Your task to perform on an android device: change the upload size in google photos Image 0: 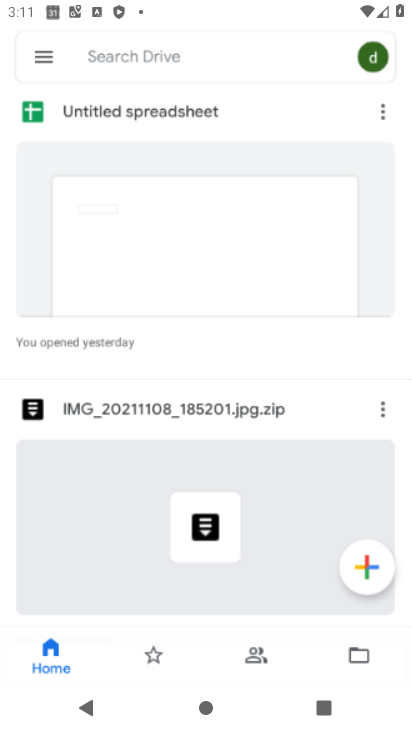
Step 0: drag from (272, 672) to (299, 104)
Your task to perform on an android device: change the upload size in google photos Image 1: 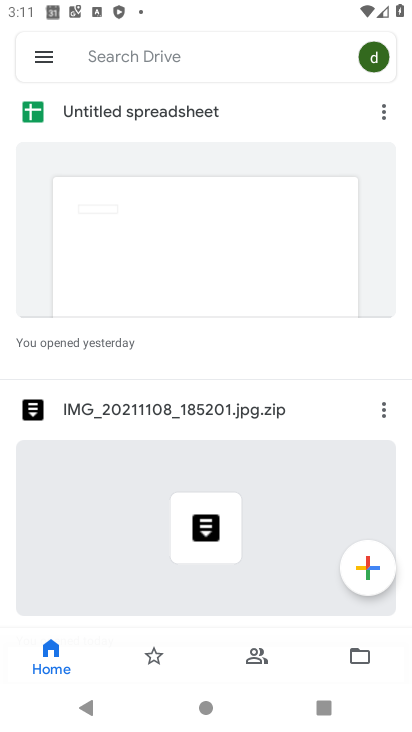
Step 1: press home button
Your task to perform on an android device: change the upload size in google photos Image 2: 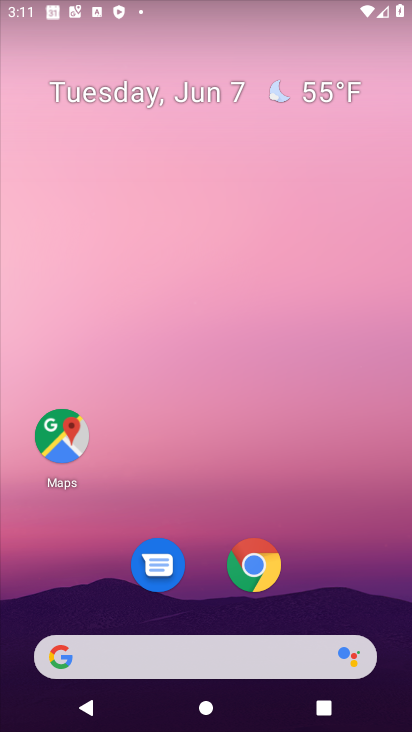
Step 2: drag from (183, 645) to (315, 67)
Your task to perform on an android device: change the upload size in google photos Image 3: 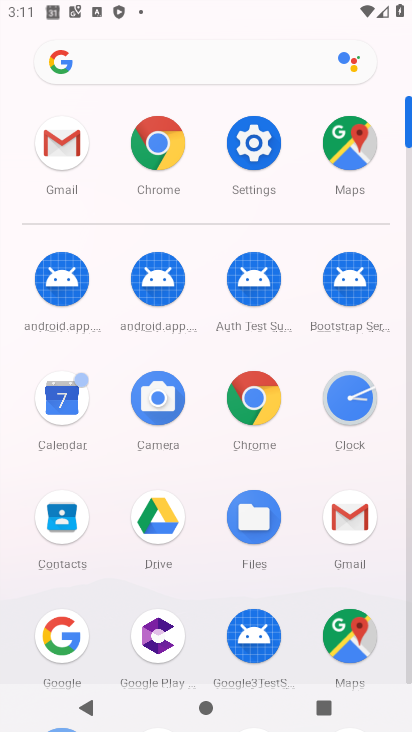
Step 3: drag from (191, 612) to (207, 390)
Your task to perform on an android device: change the upload size in google photos Image 4: 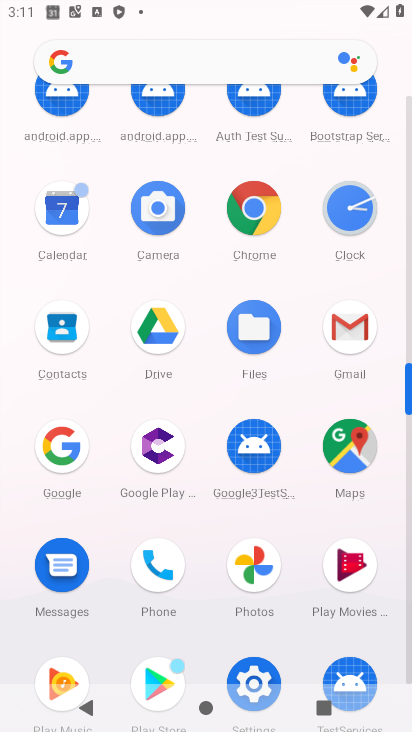
Step 4: click (259, 564)
Your task to perform on an android device: change the upload size in google photos Image 5: 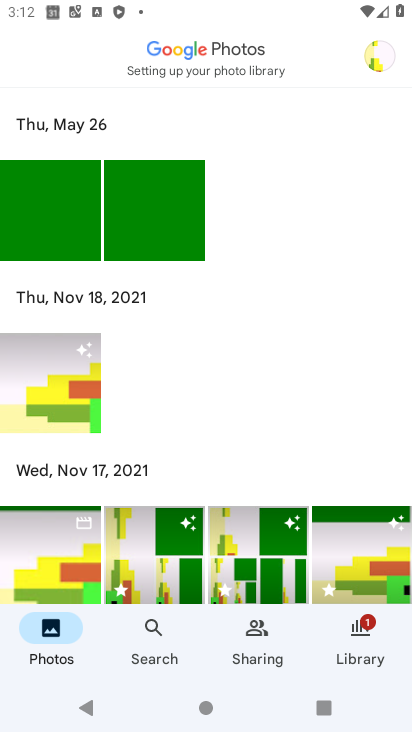
Step 5: click (377, 62)
Your task to perform on an android device: change the upload size in google photos Image 6: 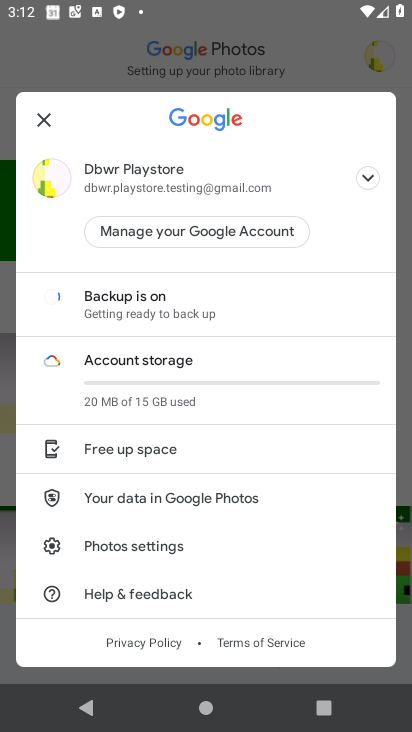
Step 6: drag from (231, 611) to (226, 251)
Your task to perform on an android device: change the upload size in google photos Image 7: 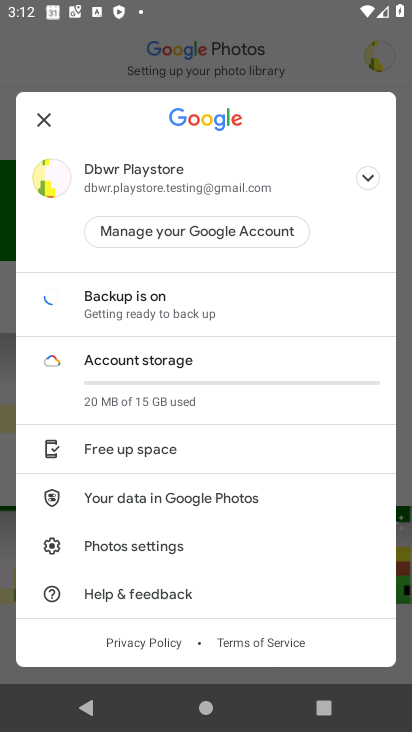
Step 7: click (178, 544)
Your task to perform on an android device: change the upload size in google photos Image 8: 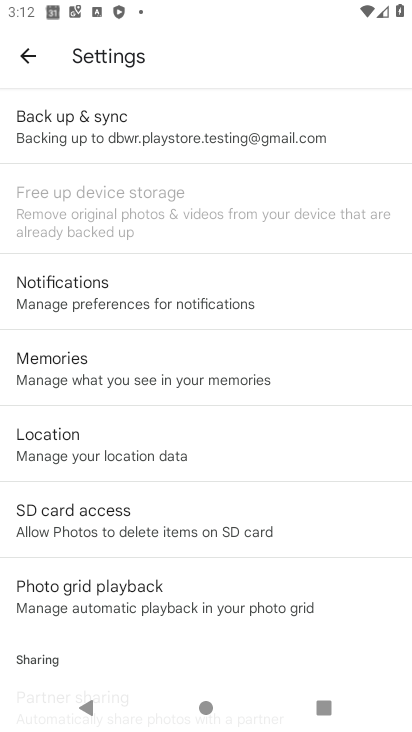
Step 8: click (204, 295)
Your task to perform on an android device: change the upload size in google photos Image 9: 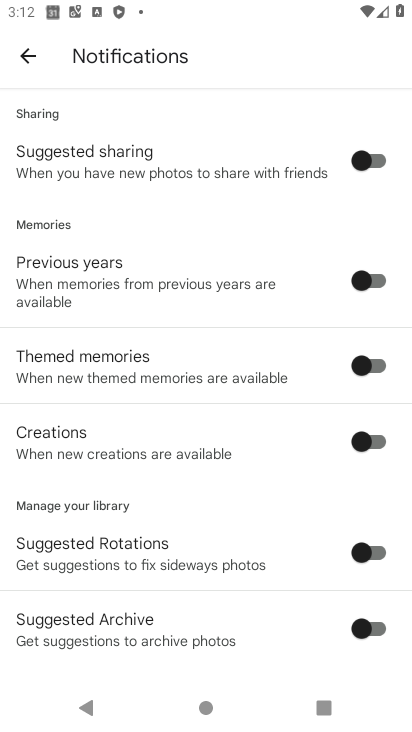
Step 9: drag from (237, 259) to (290, 244)
Your task to perform on an android device: change the upload size in google photos Image 10: 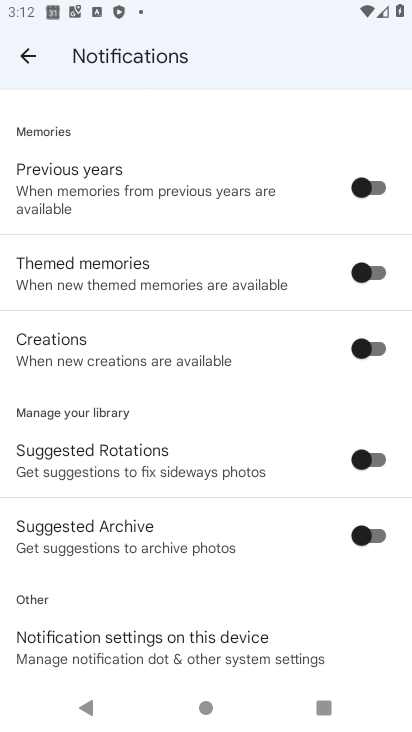
Step 10: press back button
Your task to perform on an android device: change the upload size in google photos Image 11: 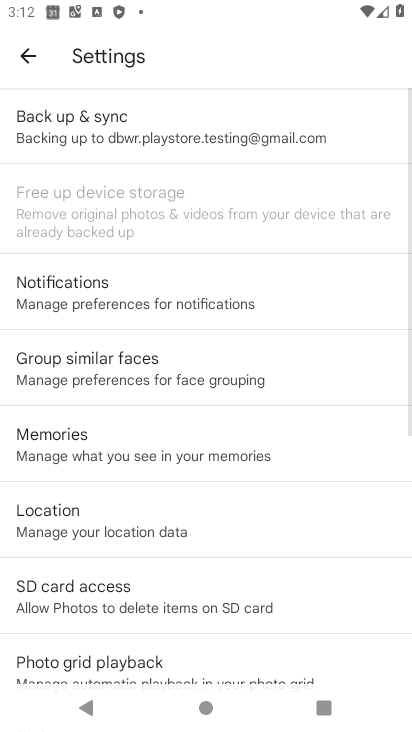
Step 11: click (206, 309)
Your task to perform on an android device: change the upload size in google photos Image 12: 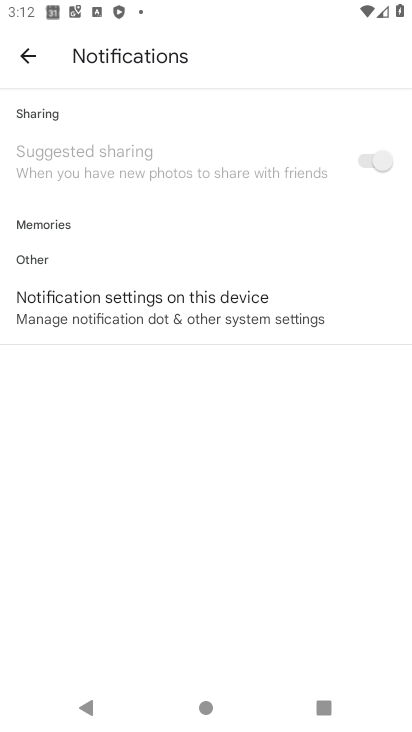
Step 12: press back button
Your task to perform on an android device: change the upload size in google photos Image 13: 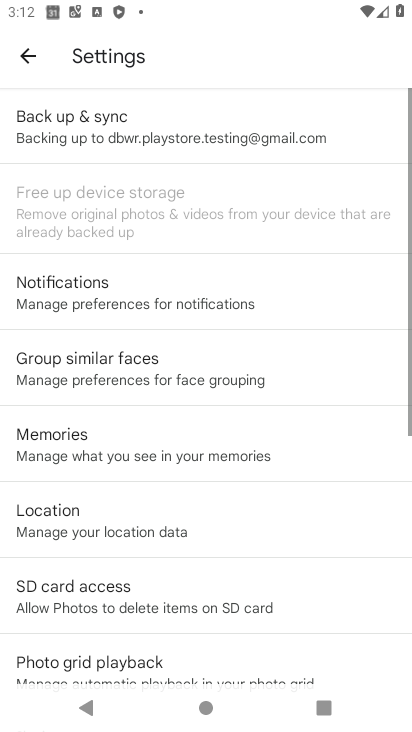
Step 13: press back button
Your task to perform on an android device: change the upload size in google photos Image 14: 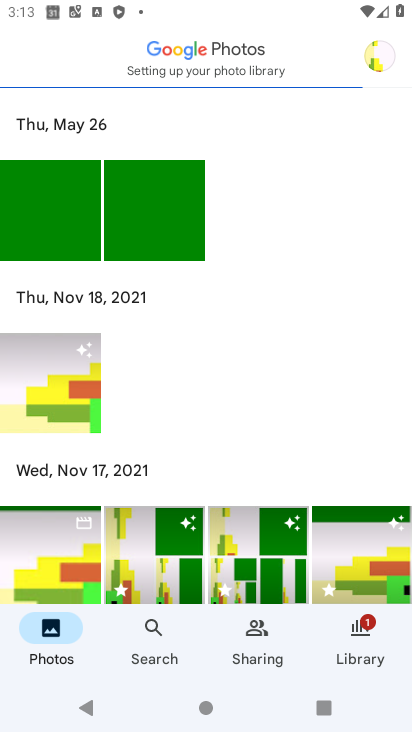
Step 14: click (375, 59)
Your task to perform on an android device: change the upload size in google photos Image 15: 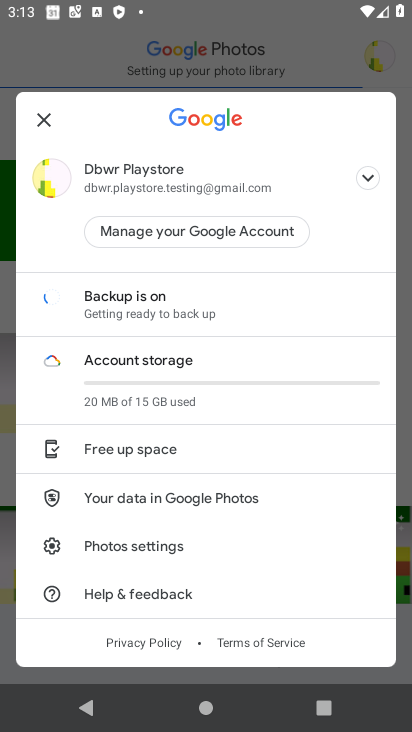
Step 15: drag from (238, 521) to (230, 243)
Your task to perform on an android device: change the upload size in google photos Image 16: 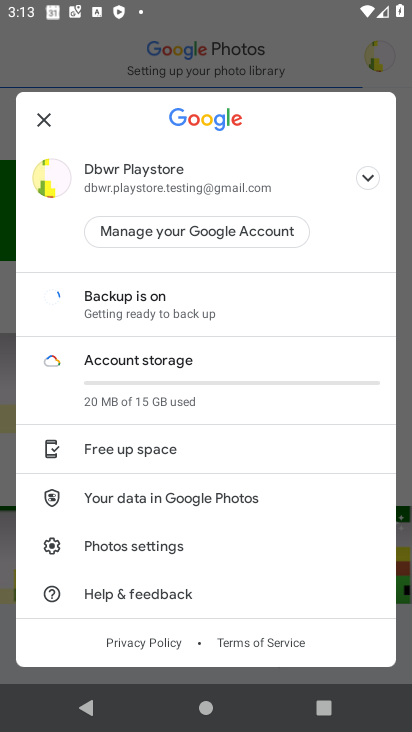
Step 16: click (144, 539)
Your task to perform on an android device: change the upload size in google photos Image 17: 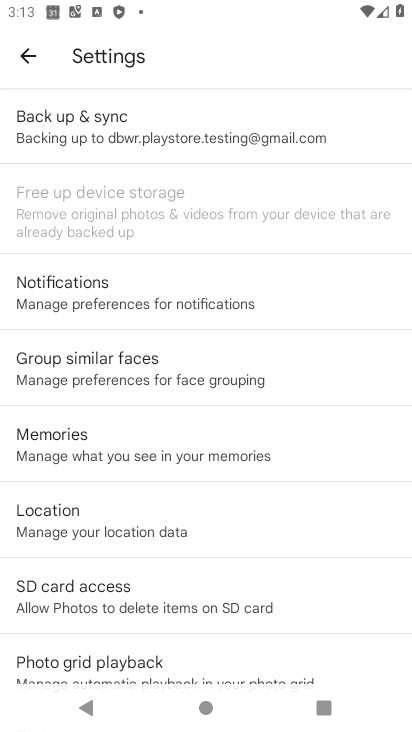
Step 17: click (227, 126)
Your task to perform on an android device: change the upload size in google photos Image 18: 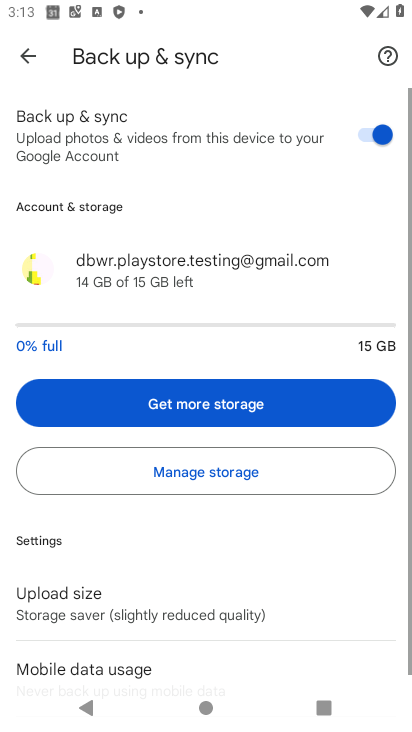
Step 18: drag from (173, 627) to (227, 202)
Your task to perform on an android device: change the upload size in google photos Image 19: 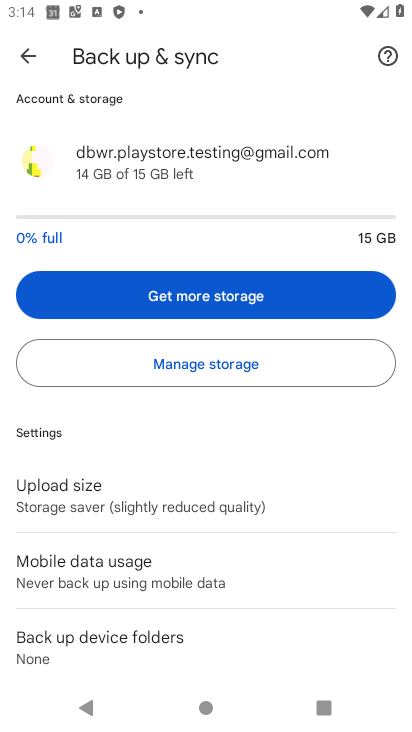
Step 19: click (141, 511)
Your task to perform on an android device: change the upload size in google photos Image 20: 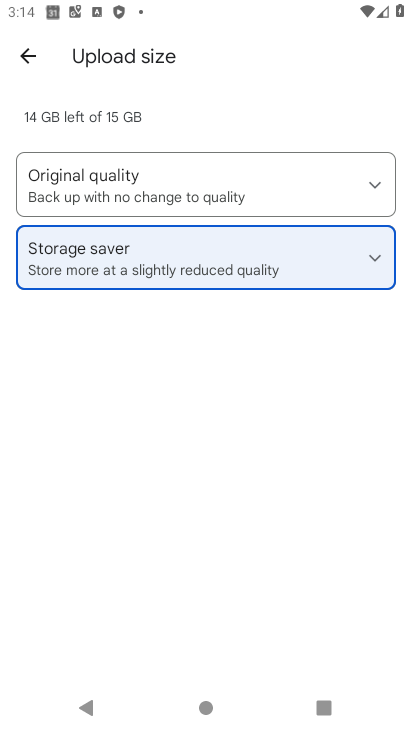
Step 20: click (193, 176)
Your task to perform on an android device: change the upload size in google photos Image 21: 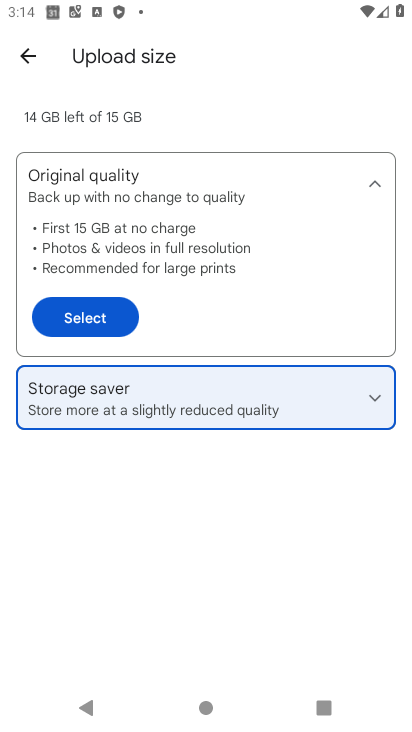
Step 21: click (106, 324)
Your task to perform on an android device: change the upload size in google photos Image 22: 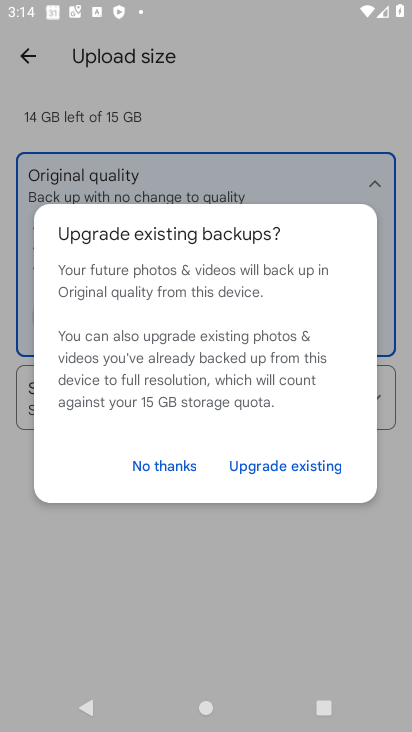
Step 22: click (164, 468)
Your task to perform on an android device: change the upload size in google photos Image 23: 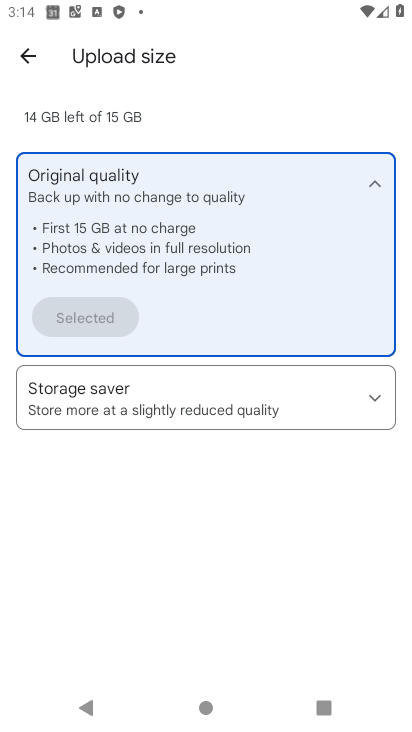
Step 23: click (269, 315)
Your task to perform on an android device: change the upload size in google photos Image 24: 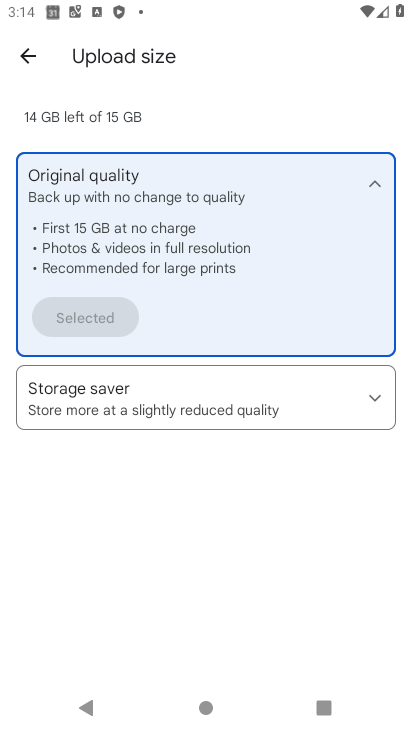
Step 24: task complete